Your task to perform on an android device: Search for sushi restaurants on Maps Image 0: 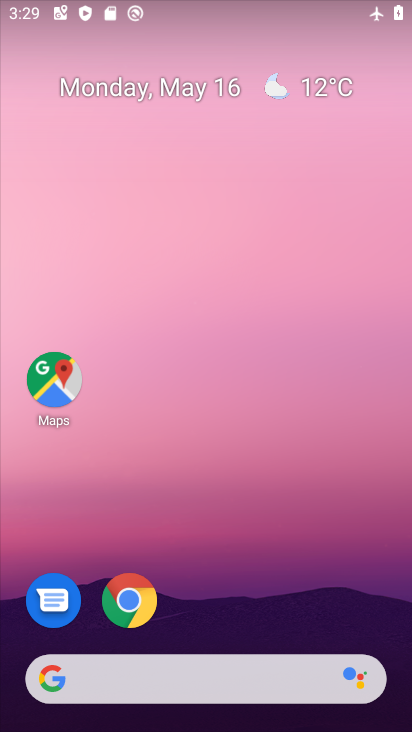
Step 0: click (36, 381)
Your task to perform on an android device: Search for sushi restaurants on Maps Image 1: 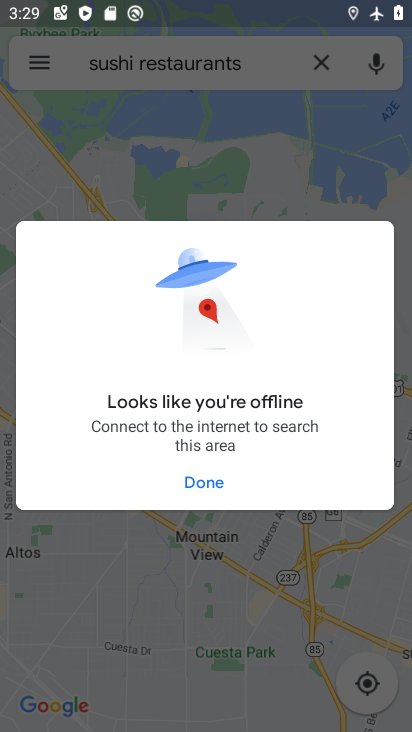
Step 1: click (192, 492)
Your task to perform on an android device: Search for sushi restaurants on Maps Image 2: 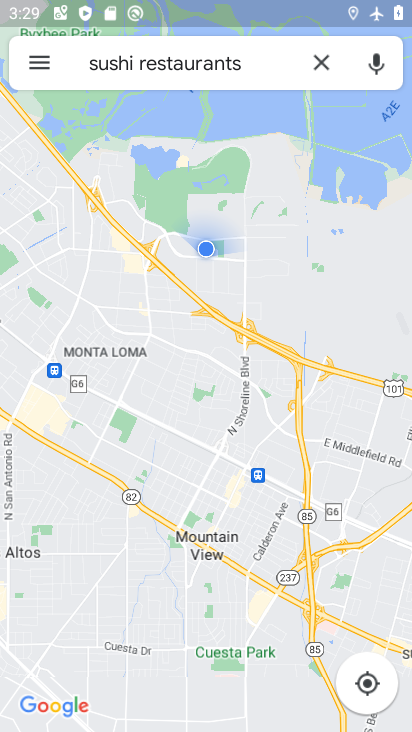
Step 2: click (327, 65)
Your task to perform on an android device: Search for sushi restaurants on Maps Image 3: 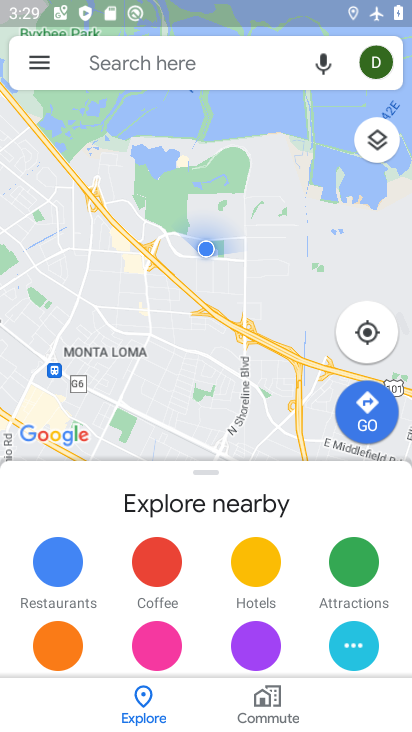
Step 3: task complete